Your task to perform on an android device: toggle sleep mode Image 0: 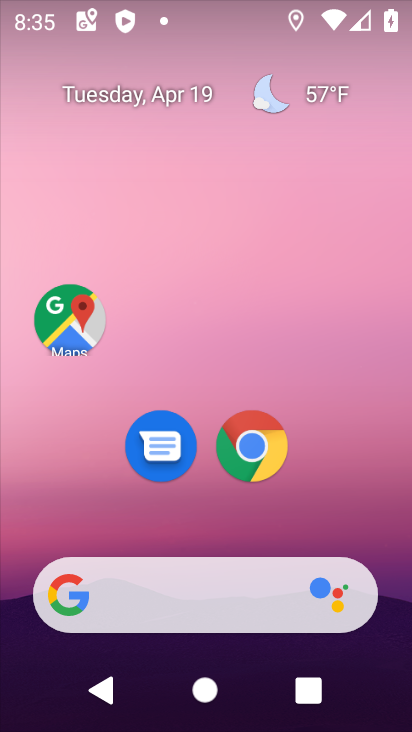
Step 0: drag from (333, 408) to (285, 94)
Your task to perform on an android device: toggle sleep mode Image 1: 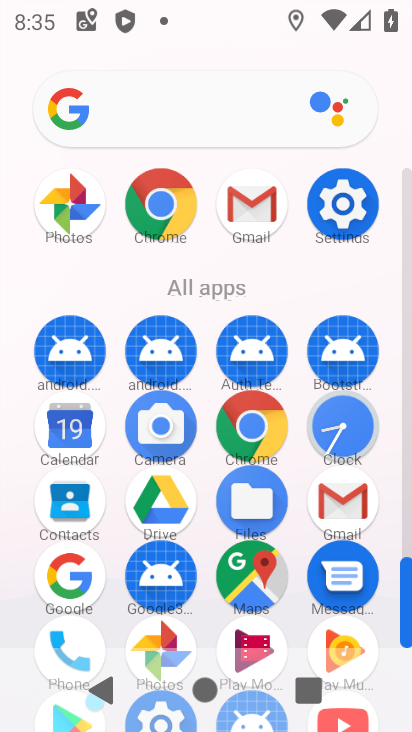
Step 1: click (346, 202)
Your task to perform on an android device: toggle sleep mode Image 2: 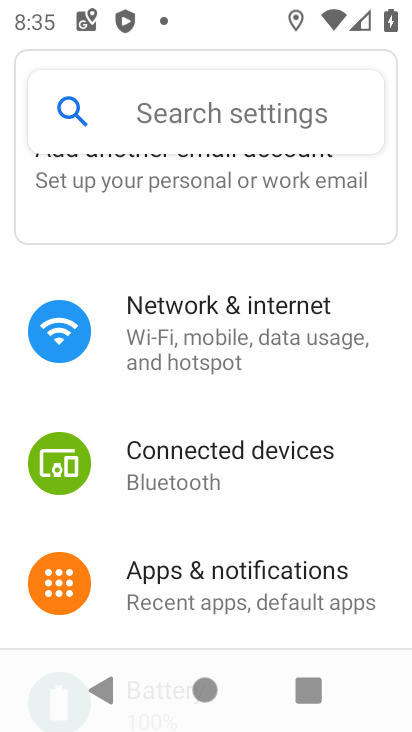
Step 2: drag from (202, 597) to (198, 196)
Your task to perform on an android device: toggle sleep mode Image 3: 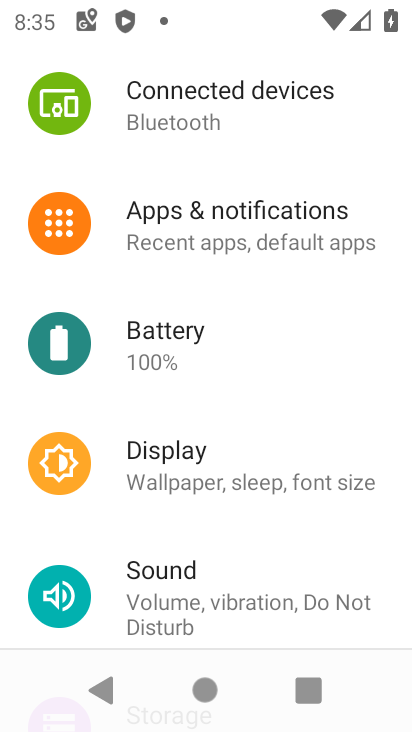
Step 3: click (181, 456)
Your task to perform on an android device: toggle sleep mode Image 4: 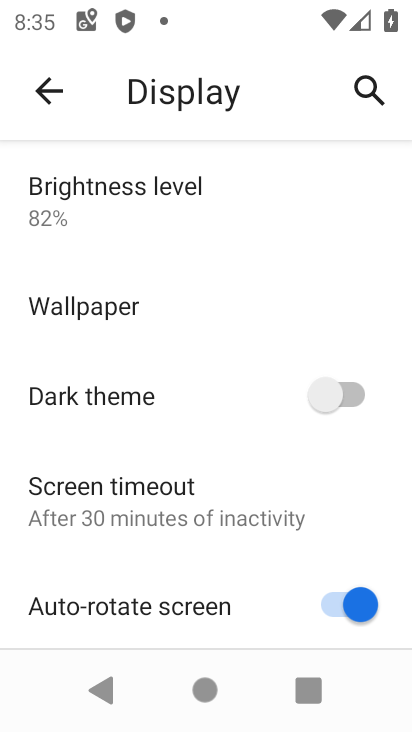
Step 4: drag from (176, 595) to (167, 225)
Your task to perform on an android device: toggle sleep mode Image 5: 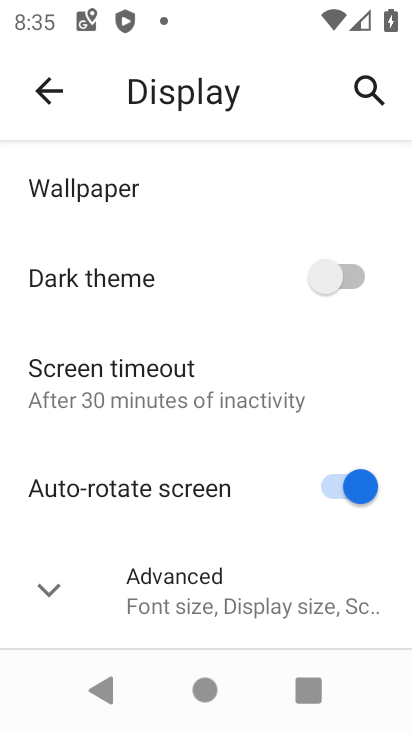
Step 5: click (177, 585)
Your task to perform on an android device: toggle sleep mode Image 6: 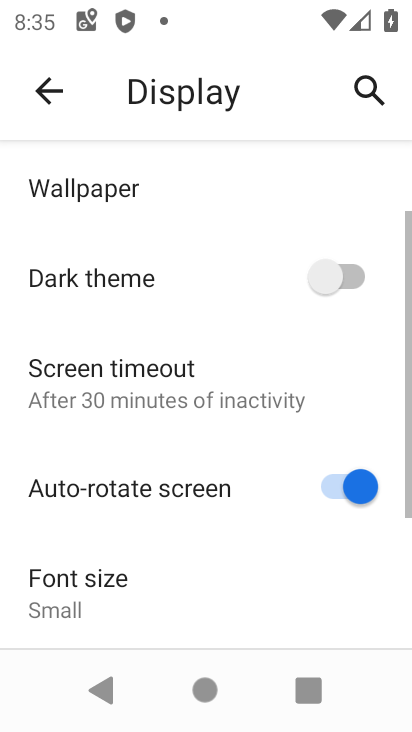
Step 6: task complete